Your task to perform on an android device: turn on the 12-hour format for clock Image 0: 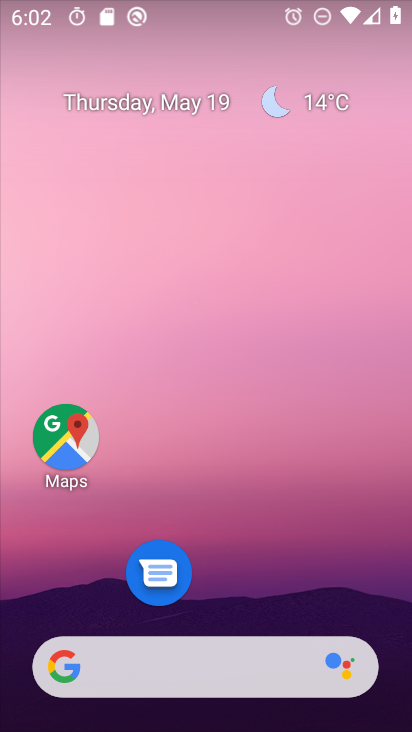
Step 0: drag from (255, 527) to (172, 83)
Your task to perform on an android device: turn on the 12-hour format for clock Image 1: 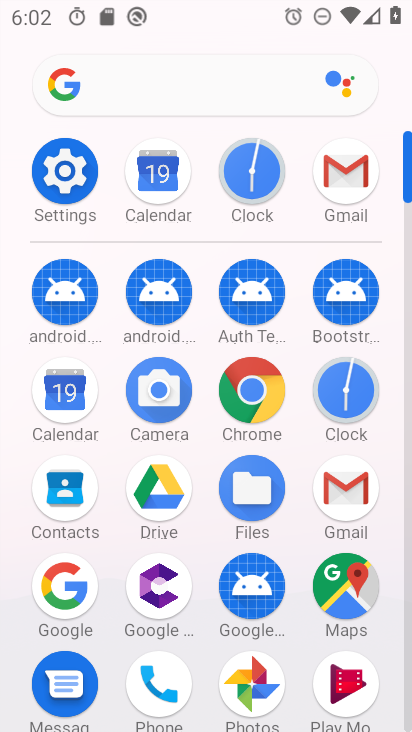
Step 1: click (345, 386)
Your task to perform on an android device: turn on the 12-hour format for clock Image 2: 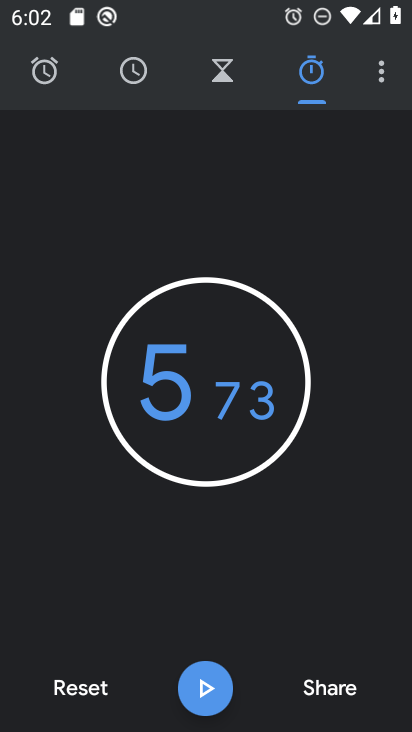
Step 2: click (386, 75)
Your task to perform on an android device: turn on the 12-hour format for clock Image 3: 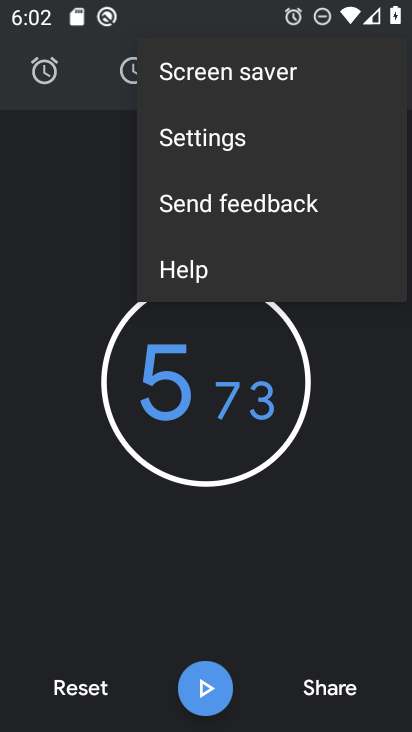
Step 3: click (212, 124)
Your task to perform on an android device: turn on the 12-hour format for clock Image 4: 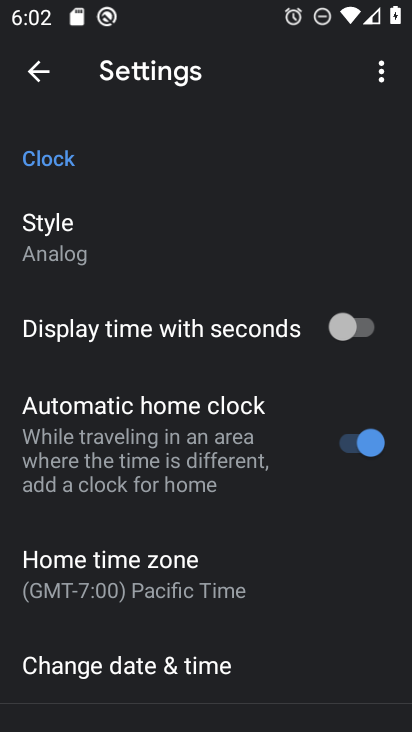
Step 4: drag from (176, 578) to (182, 256)
Your task to perform on an android device: turn on the 12-hour format for clock Image 5: 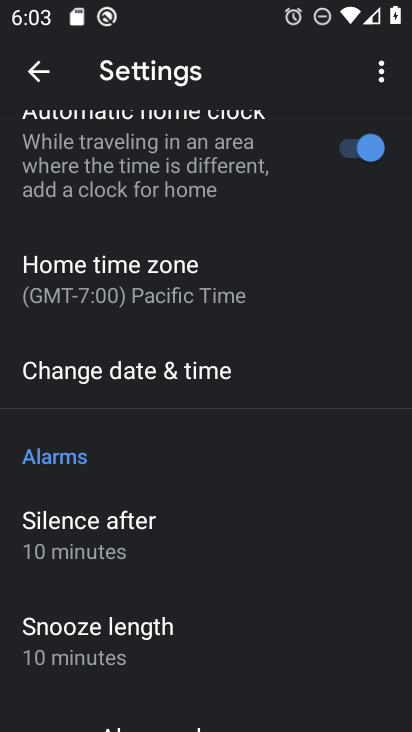
Step 5: click (165, 390)
Your task to perform on an android device: turn on the 12-hour format for clock Image 6: 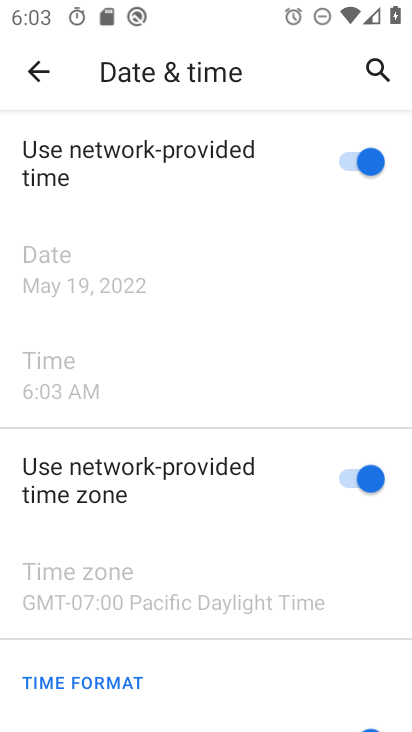
Step 6: task complete